Your task to perform on an android device: toggle notifications settings in the gmail app Image 0: 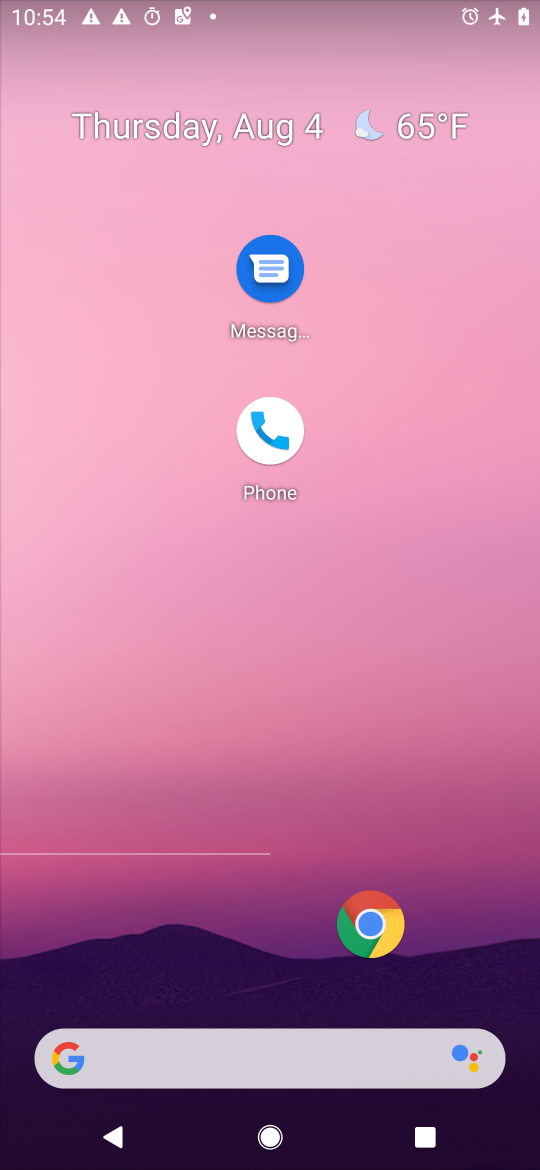
Step 0: drag from (295, 1028) to (309, 335)
Your task to perform on an android device: toggle notifications settings in the gmail app Image 1: 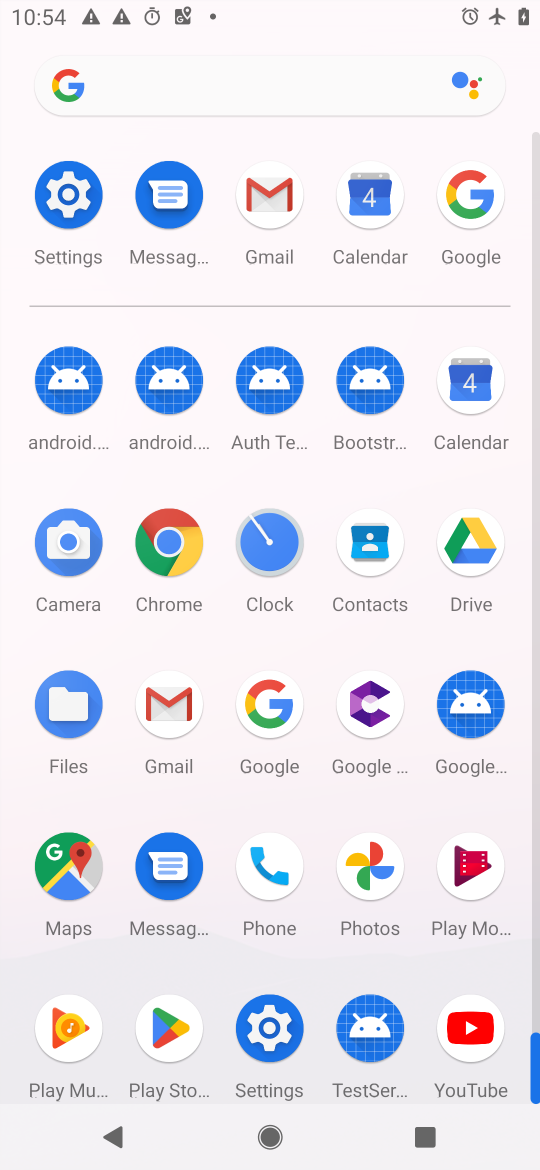
Step 1: drag from (300, 882) to (340, 504)
Your task to perform on an android device: toggle notifications settings in the gmail app Image 2: 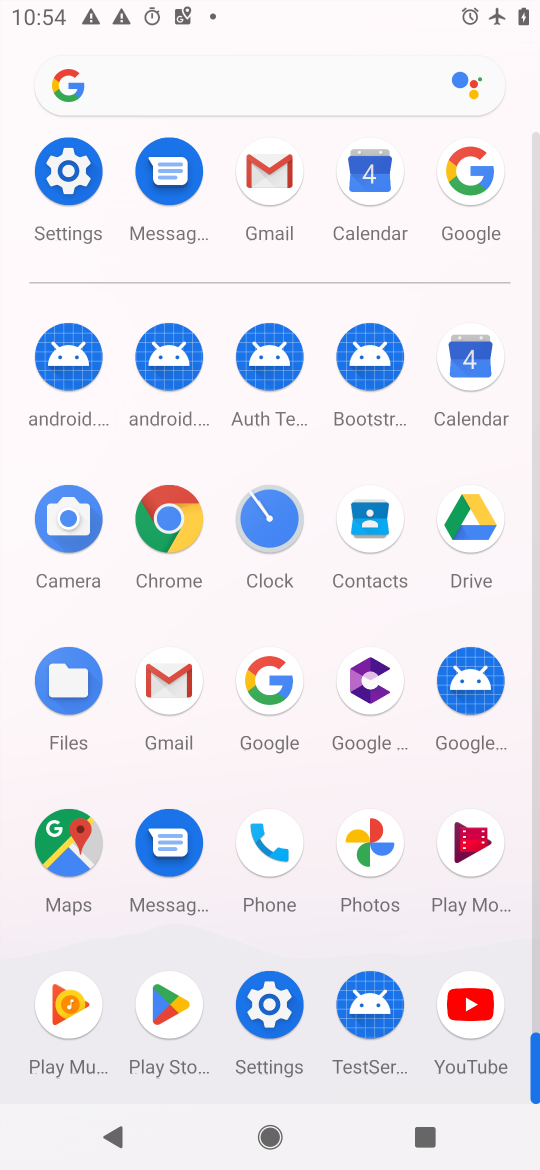
Step 2: click (173, 674)
Your task to perform on an android device: toggle notifications settings in the gmail app Image 3: 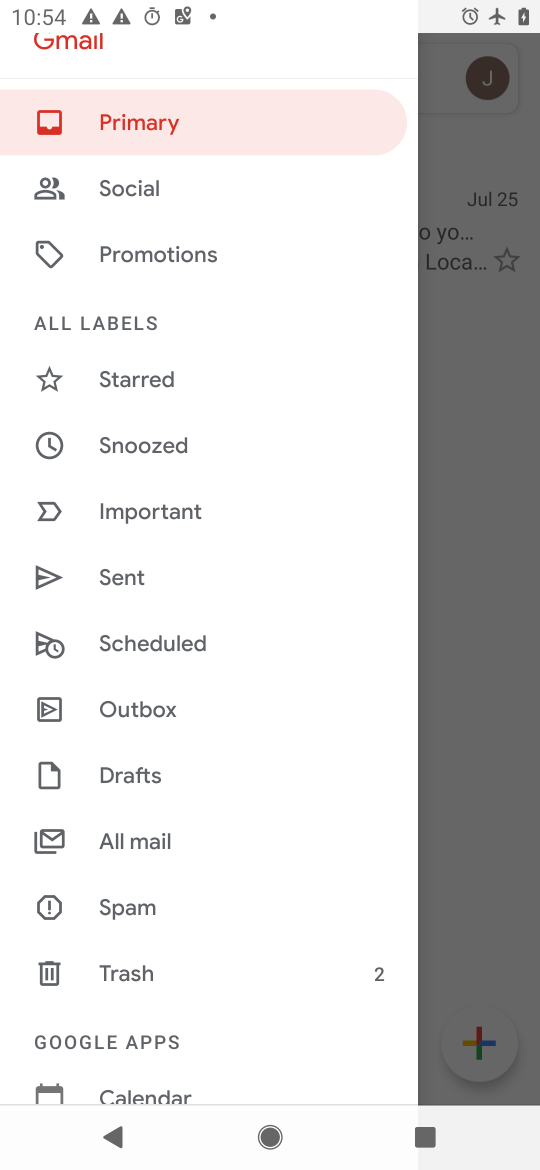
Step 3: drag from (196, 998) to (332, 127)
Your task to perform on an android device: toggle notifications settings in the gmail app Image 4: 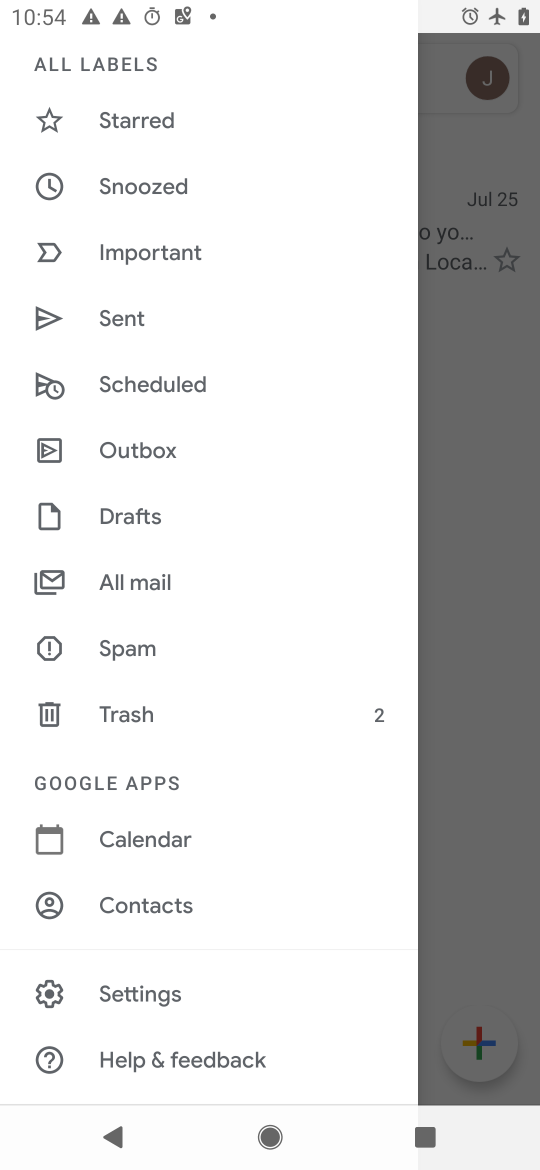
Step 4: click (281, 11)
Your task to perform on an android device: toggle notifications settings in the gmail app Image 5: 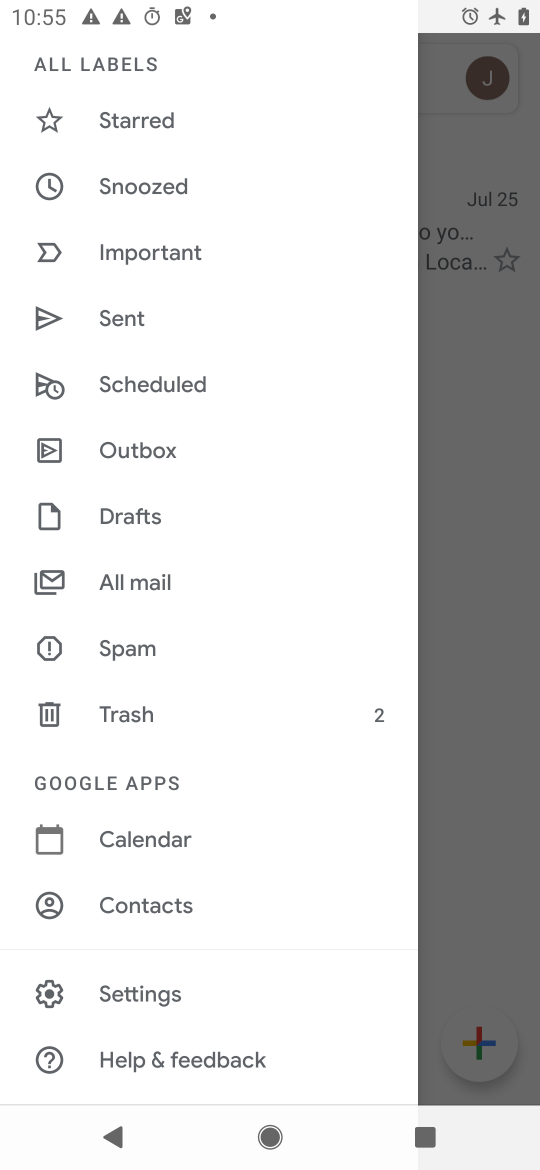
Step 5: click (468, 478)
Your task to perform on an android device: toggle notifications settings in the gmail app Image 6: 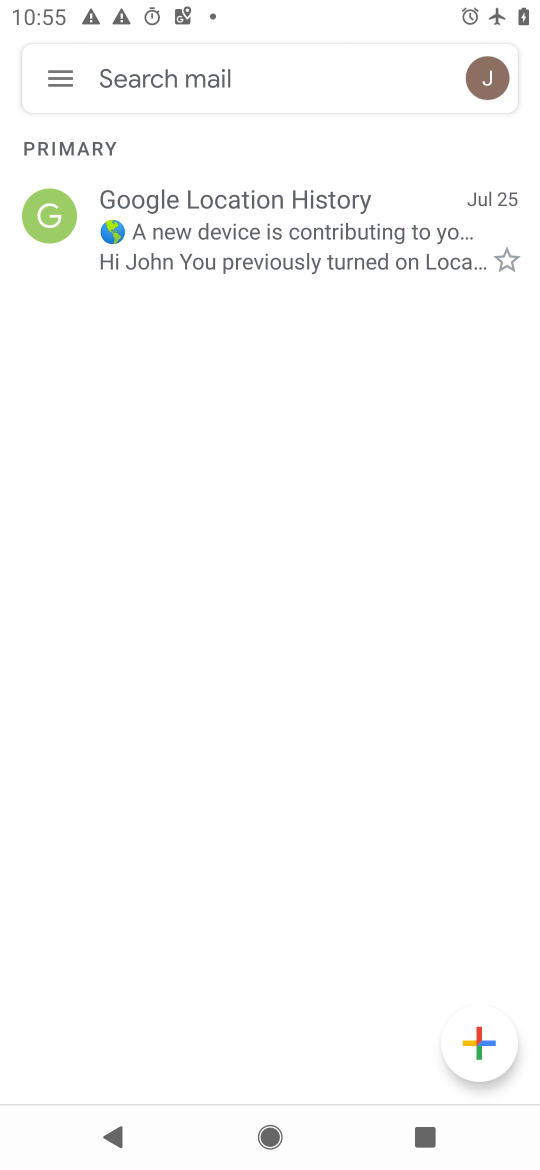
Step 6: press home button
Your task to perform on an android device: toggle notifications settings in the gmail app Image 7: 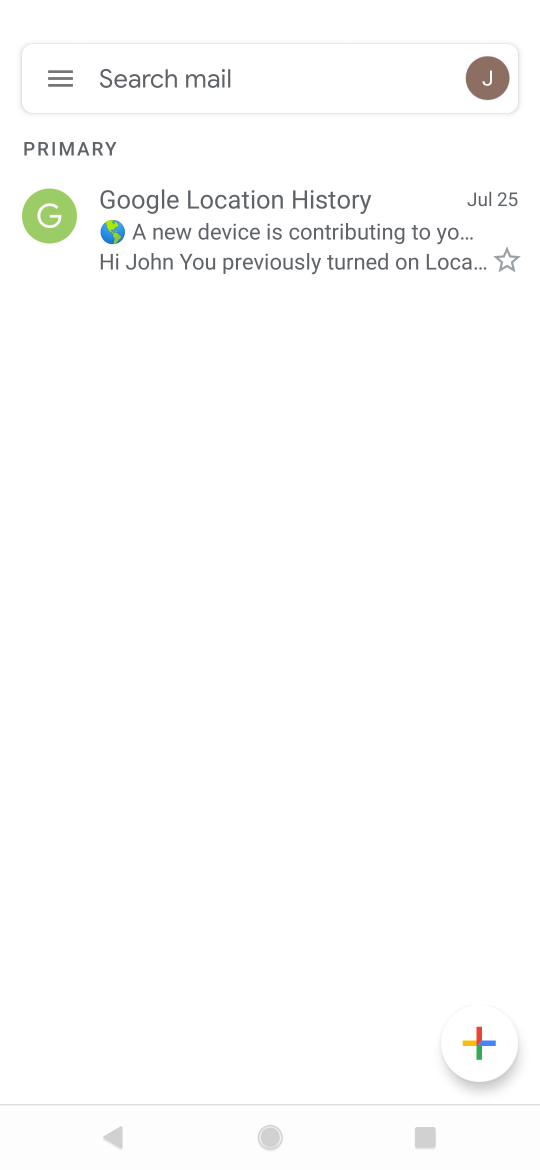
Step 7: drag from (290, 964) to (436, 126)
Your task to perform on an android device: toggle notifications settings in the gmail app Image 8: 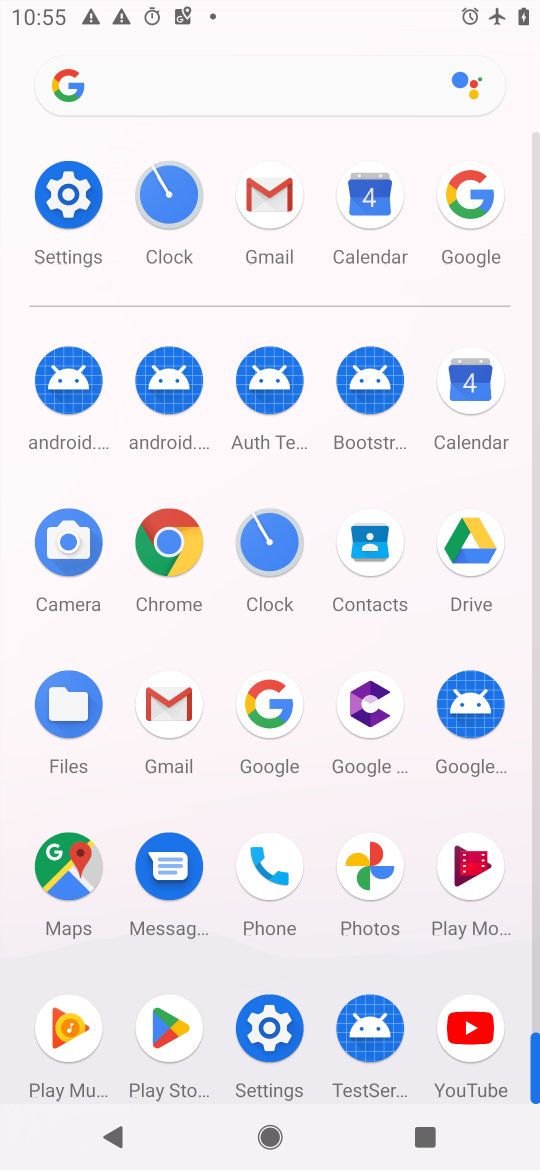
Step 8: drag from (298, 1016) to (364, 408)
Your task to perform on an android device: toggle notifications settings in the gmail app Image 9: 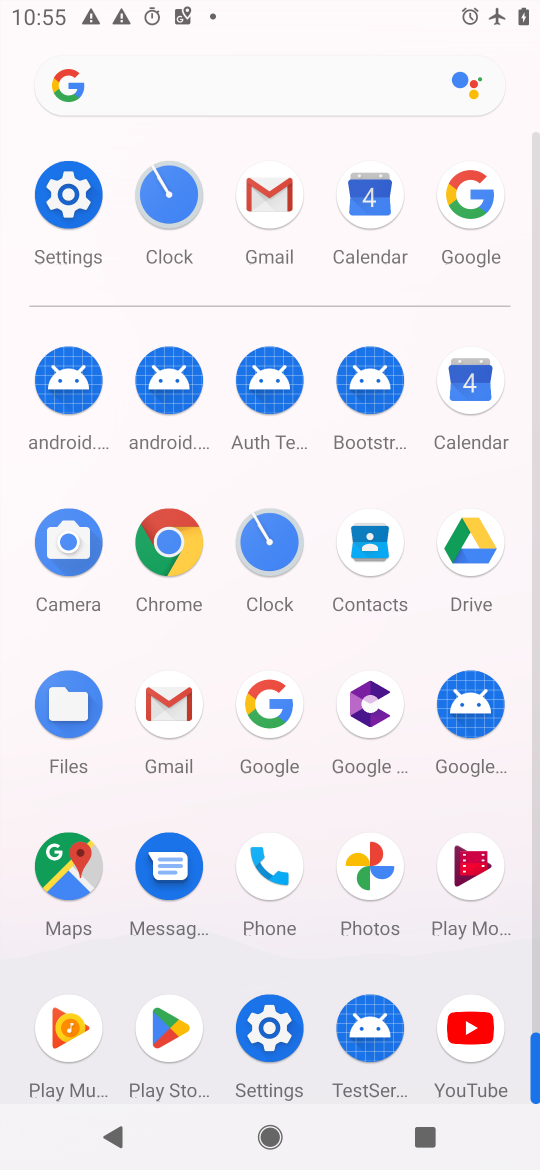
Step 9: press home button
Your task to perform on an android device: toggle notifications settings in the gmail app Image 10: 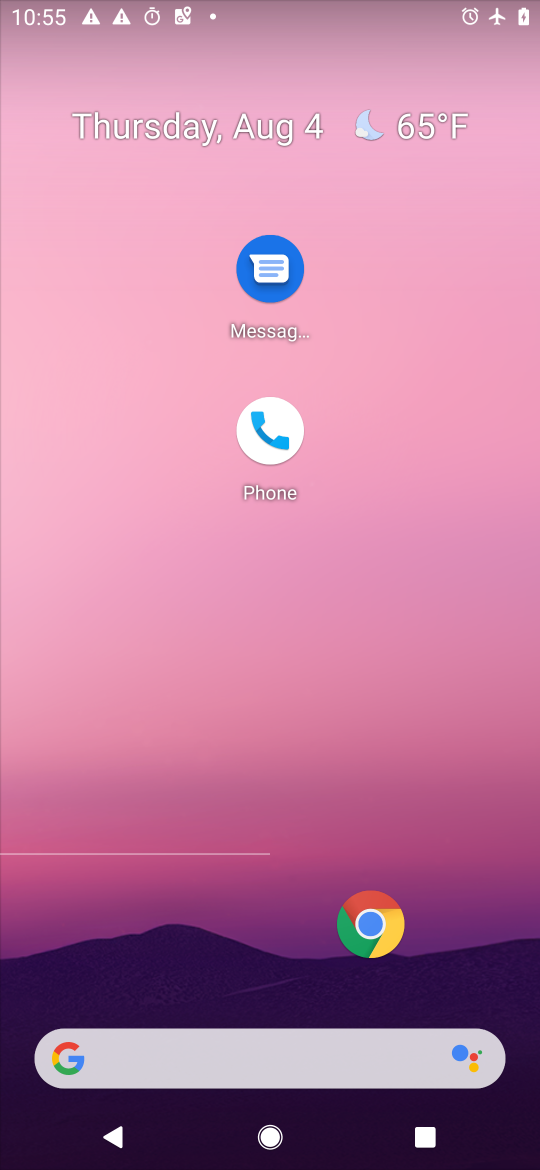
Step 10: drag from (449, 830) to (415, 516)
Your task to perform on an android device: toggle notifications settings in the gmail app Image 11: 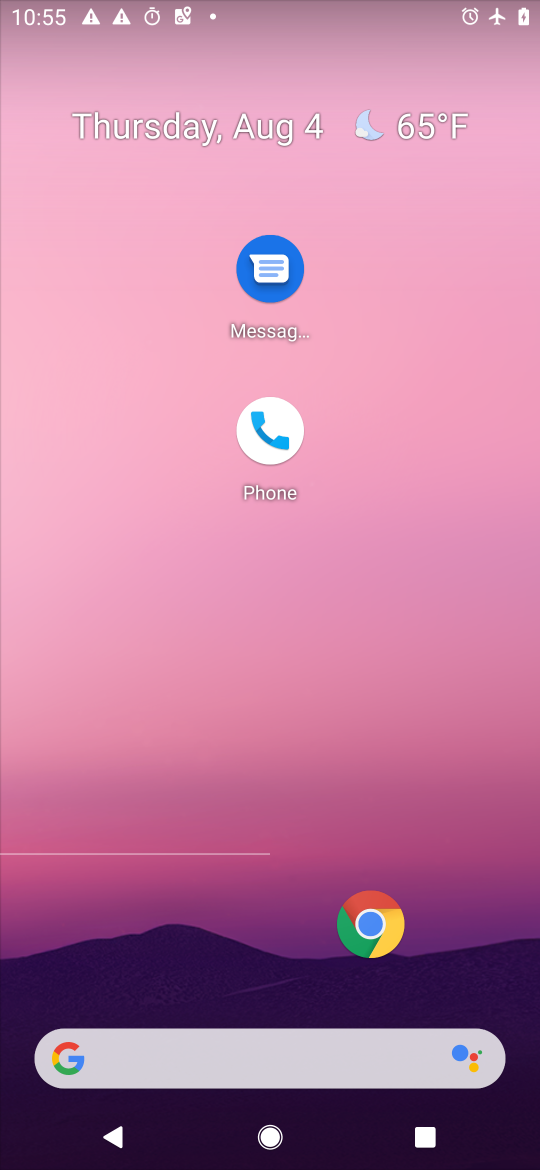
Step 11: drag from (422, 756) to (380, 167)
Your task to perform on an android device: toggle notifications settings in the gmail app Image 12: 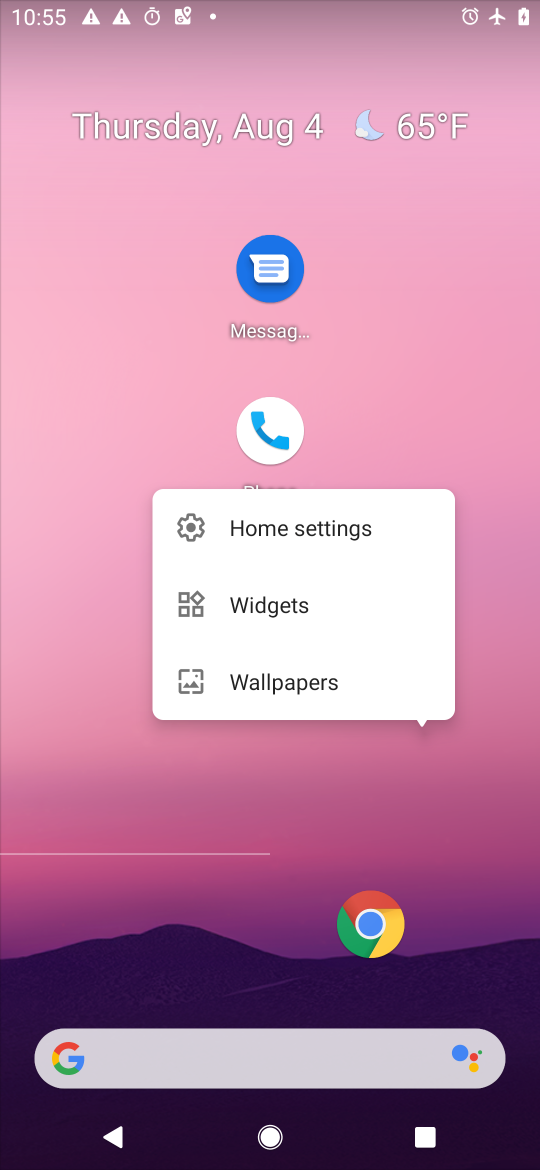
Step 12: drag from (375, 482) to (334, 241)
Your task to perform on an android device: toggle notifications settings in the gmail app Image 13: 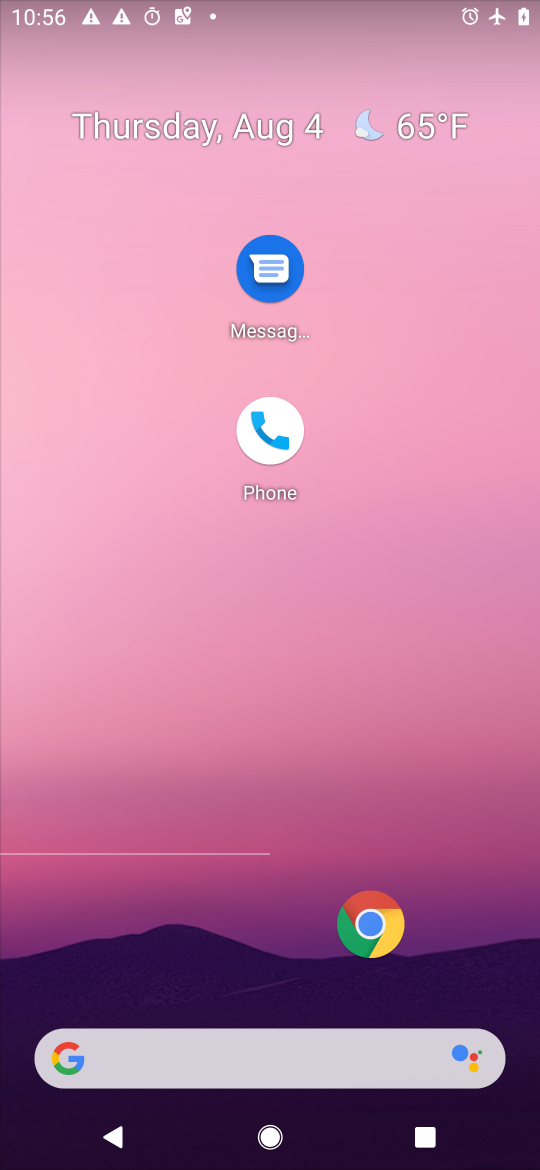
Step 13: click (424, 221)
Your task to perform on an android device: toggle notifications settings in the gmail app Image 14: 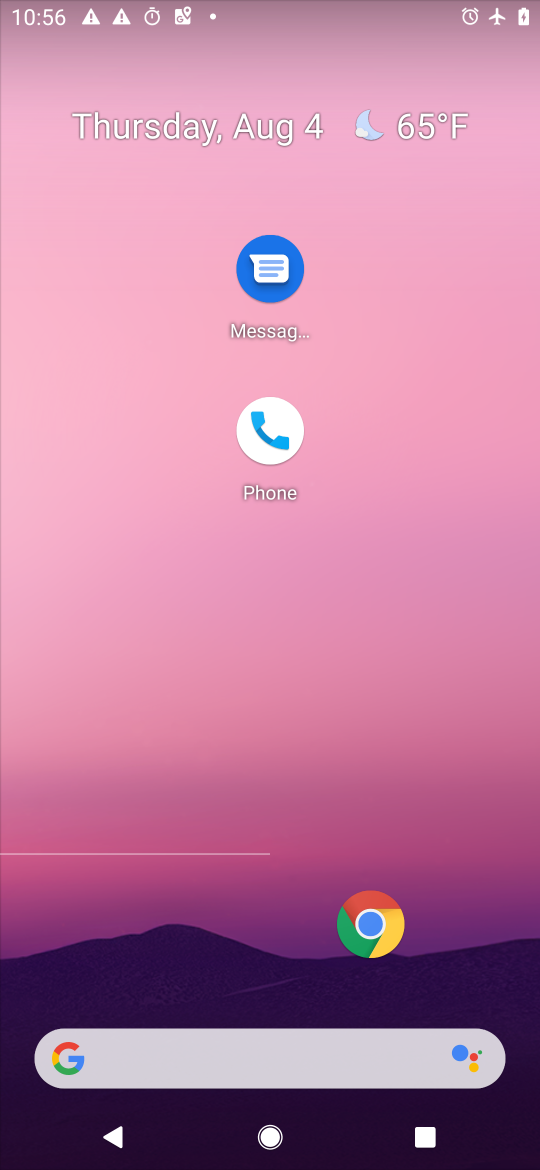
Step 14: click (287, 125)
Your task to perform on an android device: toggle notifications settings in the gmail app Image 15: 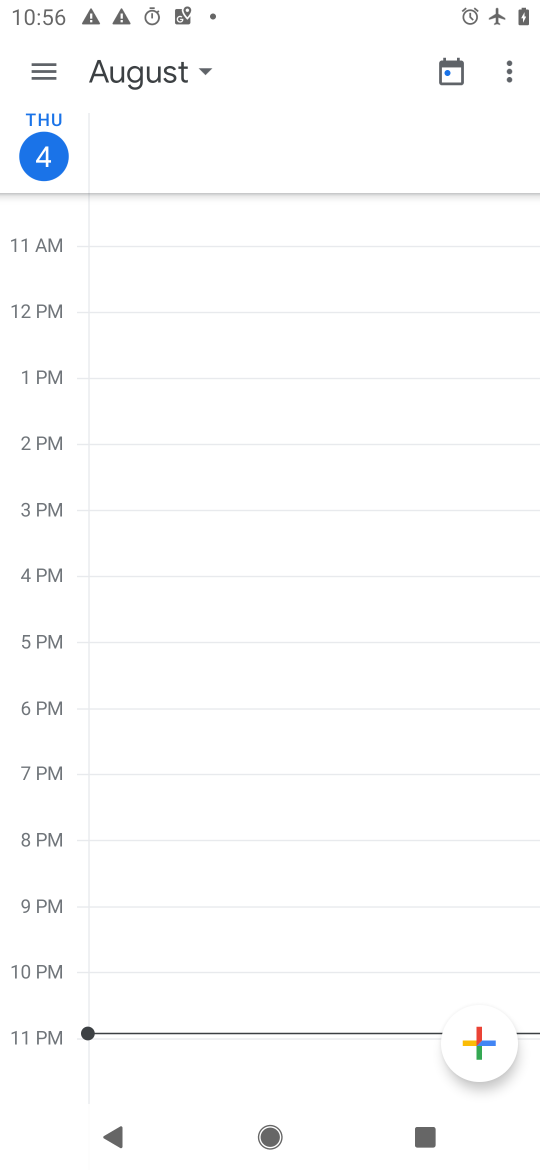
Step 15: click (176, 689)
Your task to perform on an android device: toggle notifications settings in the gmail app Image 16: 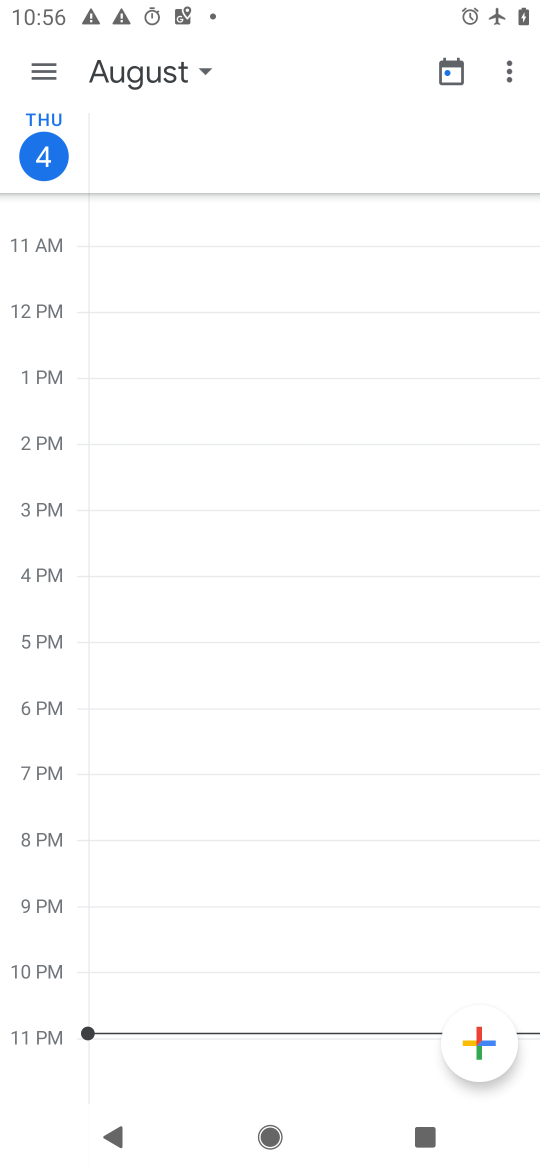
Step 16: drag from (312, 267) to (343, 120)
Your task to perform on an android device: toggle notifications settings in the gmail app Image 17: 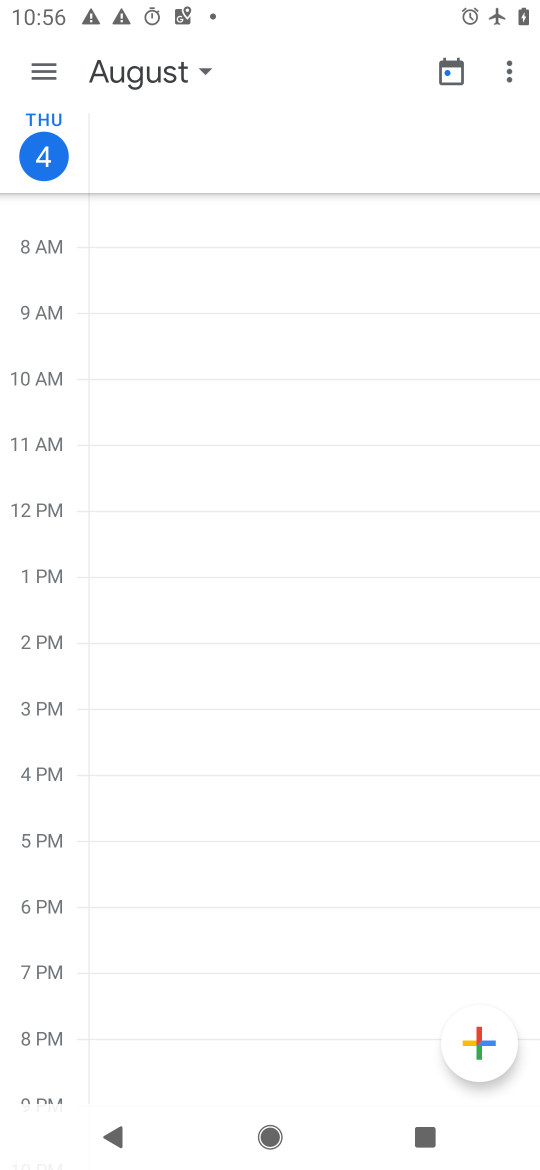
Step 17: drag from (242, 881) to (413, 200)
Your task to perform on an android device: toggle notifications settings in the gmail app Image 18: 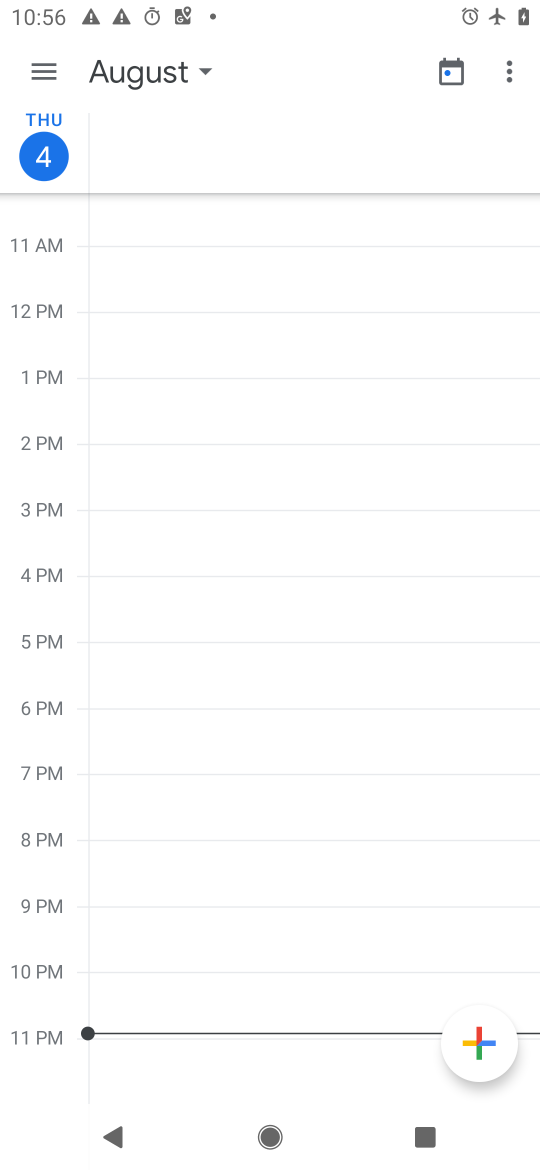
Step 18: drag from (335, 175) to (305, 101)
Your task to perform on an android device: toggle notifications settings in the gmail app Image 19: 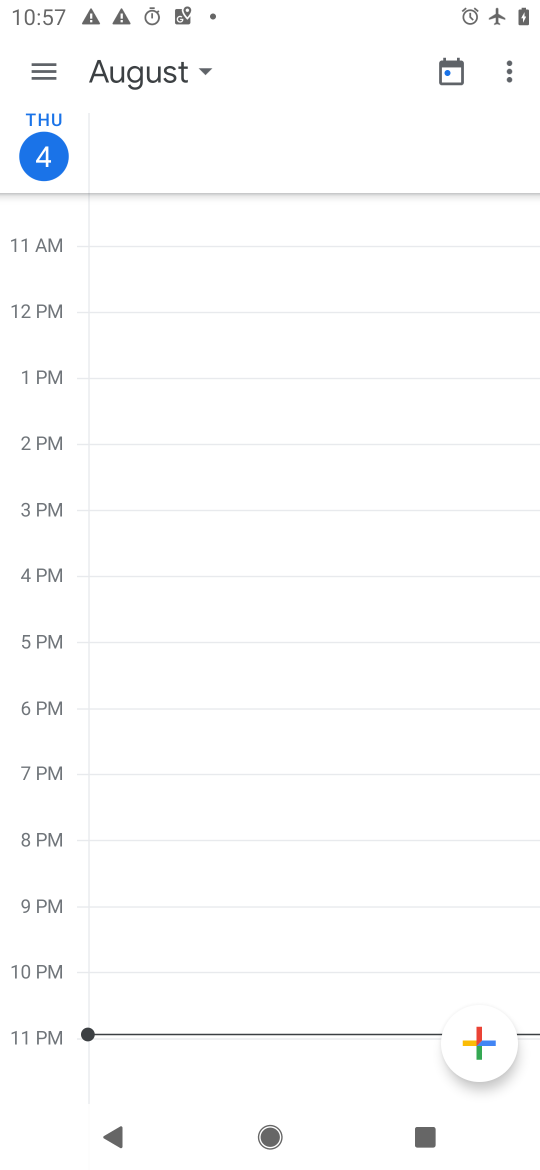
Step 19: press home button
Your task to perform on an android device: toggle notifications settings in the gmail app Image 20: 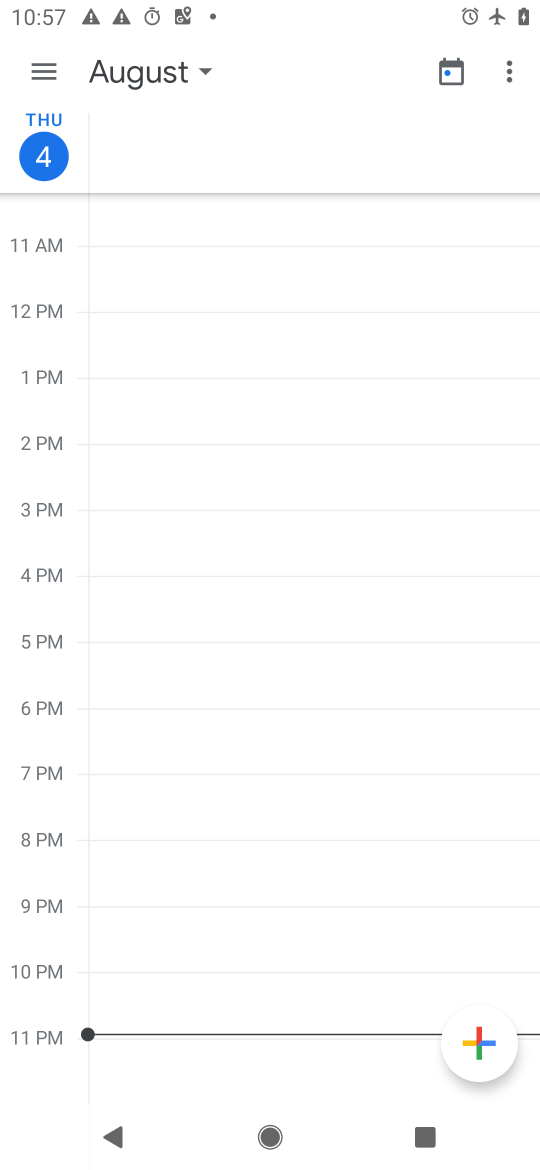
Step 20: drag from (290, 697) to (388, 109)
Your task to perform on an android device: toggle notifications settings in the gmail app Image 21: 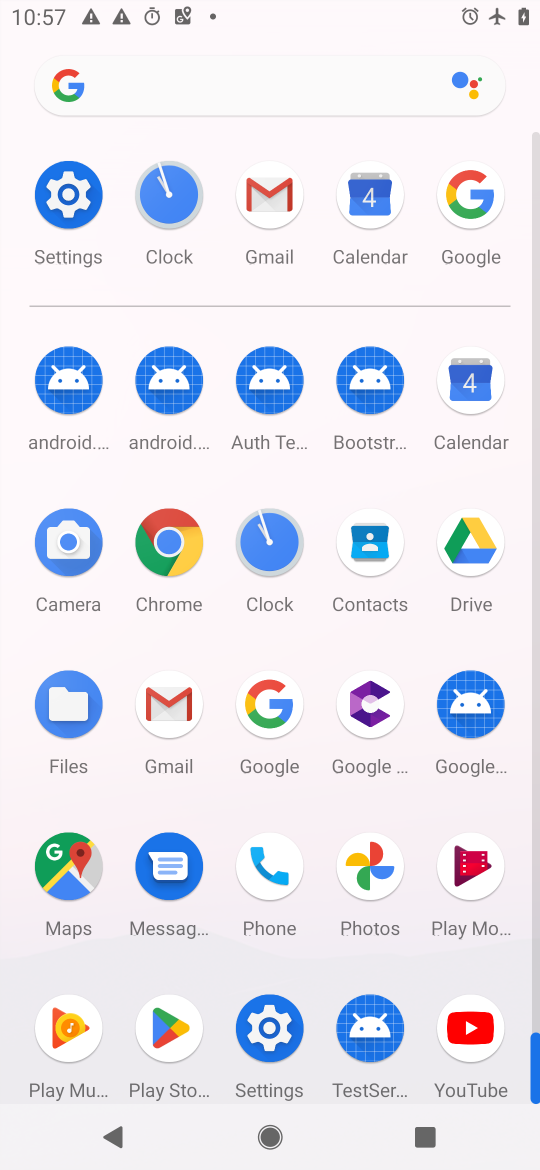
Step 21: click (171, 725)
Your task to perform on an android device: toggle notifications settings in the gmail app Image 22: 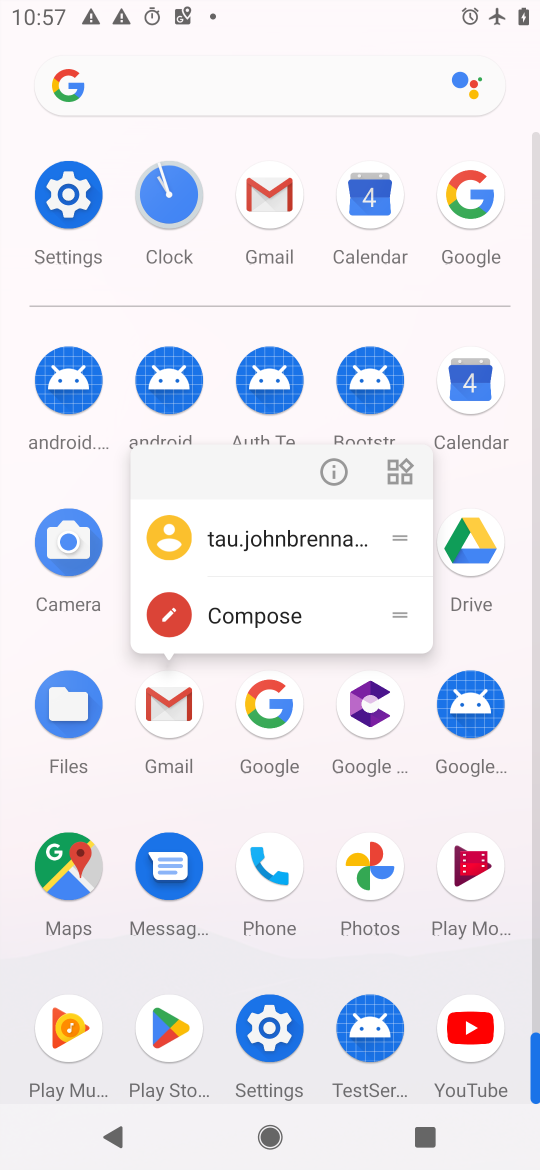
Step 22: click (340, 452)
Your task to perform on an android device: toggle notifications settings in the gmail app Image 23: 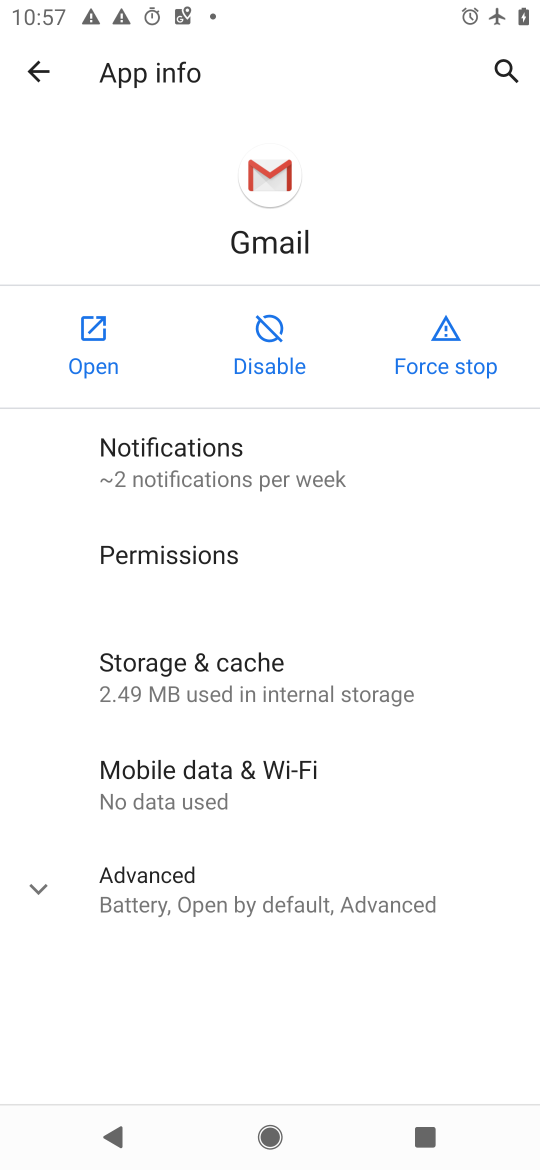
Step 23: click (104, 351)
Your task to perform on an android device: toggle notifications settings in the gmail app Image 24: 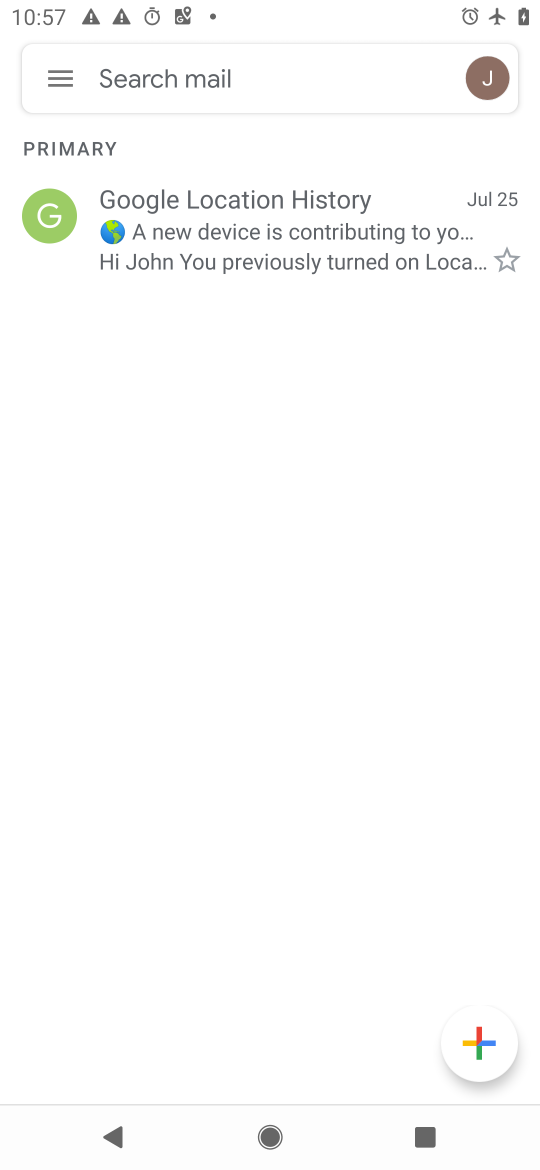
Step 24: click (68, 86)
Your task to perform on an android device: toggle notifications settings in the gmail app Image 25: 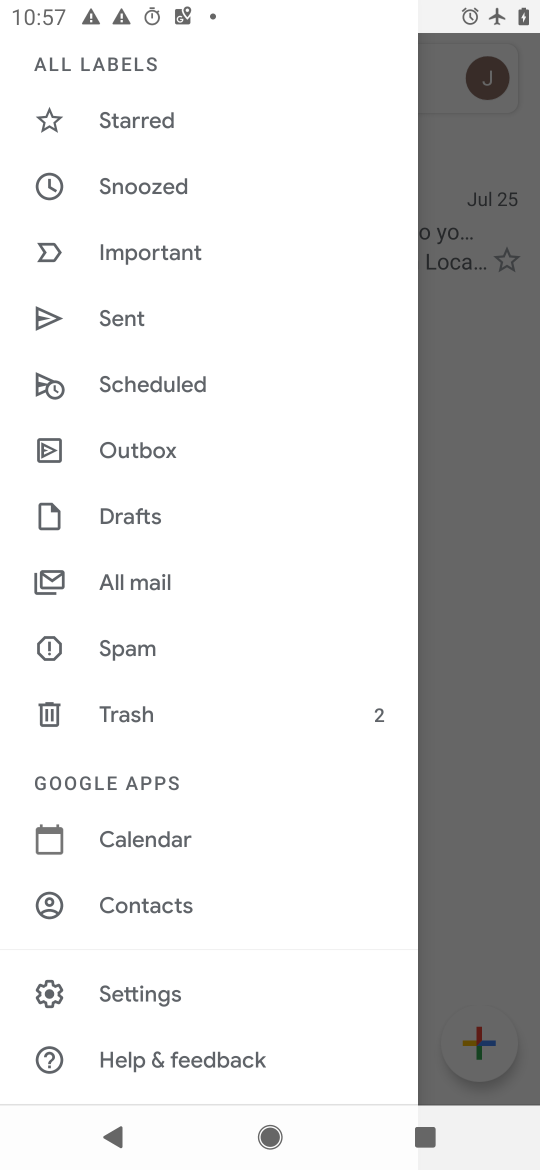
Step 25: click (159, 998)
Your task to perform on an android device: toggle notifications settings in the gmail app Image 26: 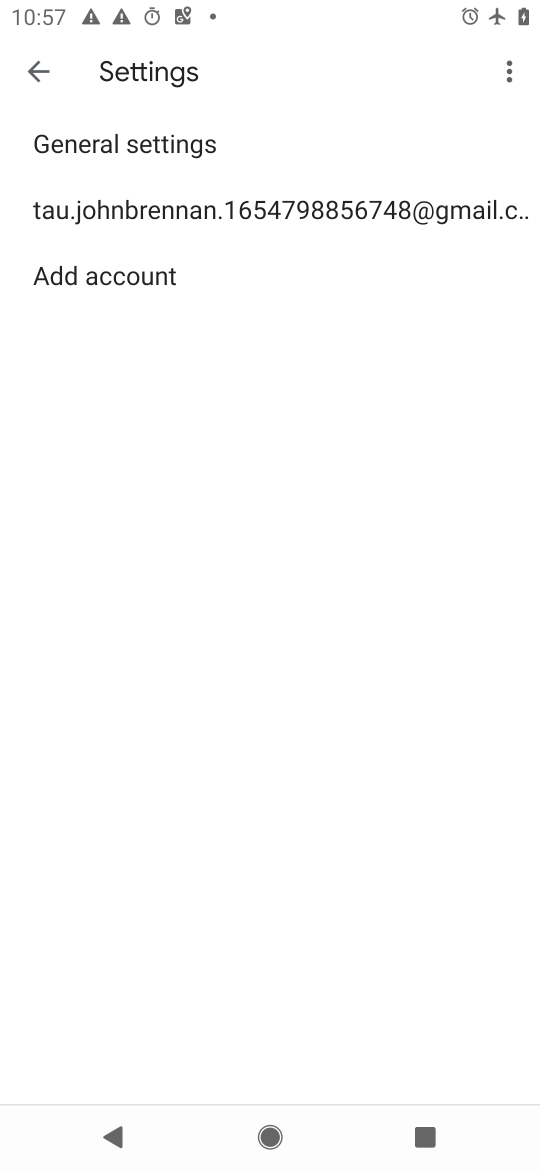
Step 26: click (183, 210)
Your task to perform on an android device: toggle notifications settings in the gmail app Image 27: 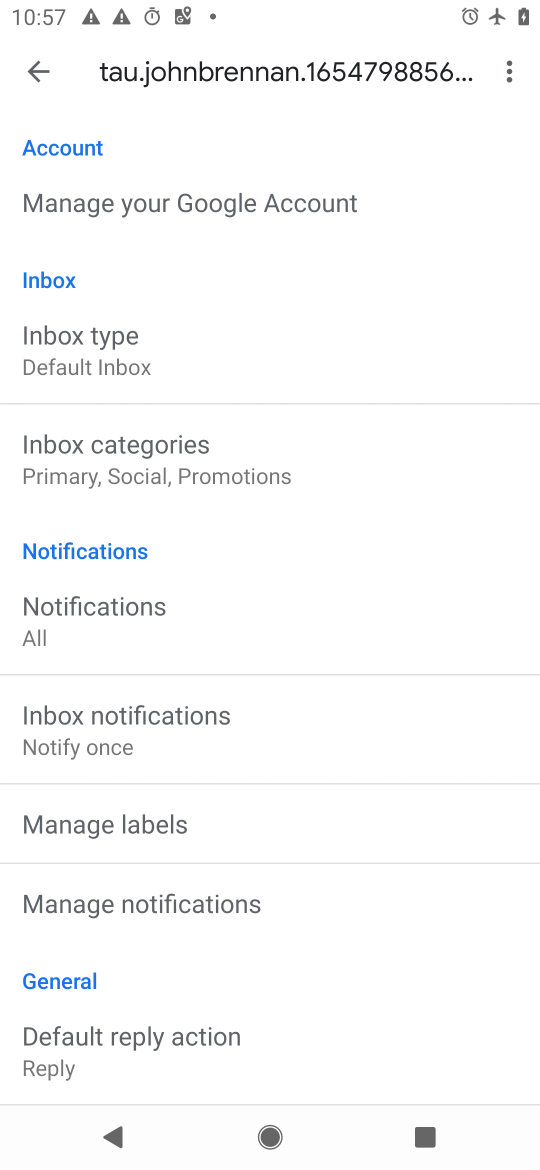
Step 27: click (172, 892)
Your task to perform on an android device: toggle notifications settings in the gmail app Image 28: 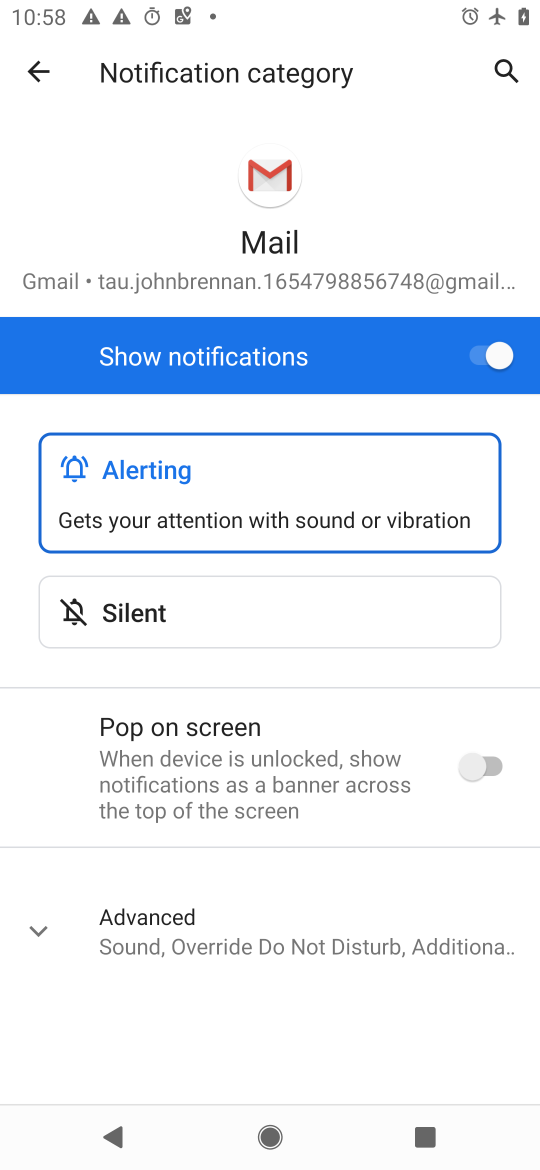
Step 28: click (475, 357)
Your task to perform on an android device: toggle notifications settings in the gmail app Image 29: 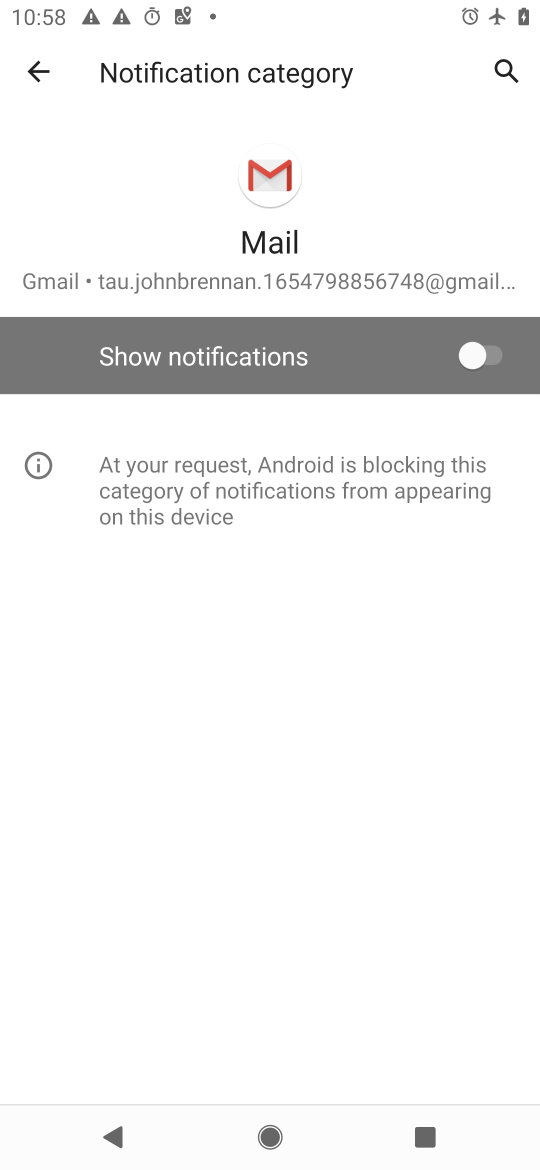
Step 29: task complete